Your task to perform on an android device: turn on notifications settings in the gmail app Image 0: 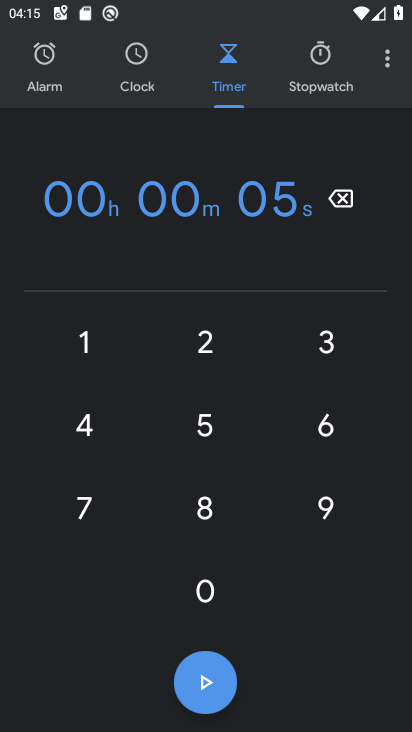
Step 0: press home button
Your task to perform on an android device: turn on notifications settings in the gmail app Image 1: 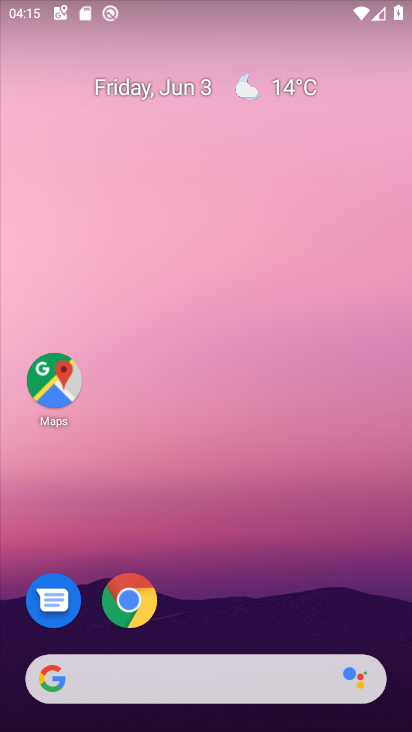
Step 1: drag from (199, 356) to (152, 152)
Your task to perform on an android device: turn on notifications settings in the gmail app Image 2: 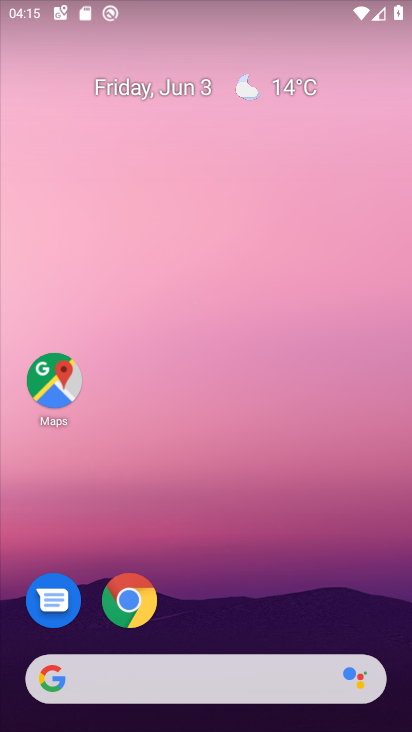
Step 2: drag from (215, 518) to (192, 184)
Your task to perform on an android device: turn on notifications settings in the gmail app Image 3: 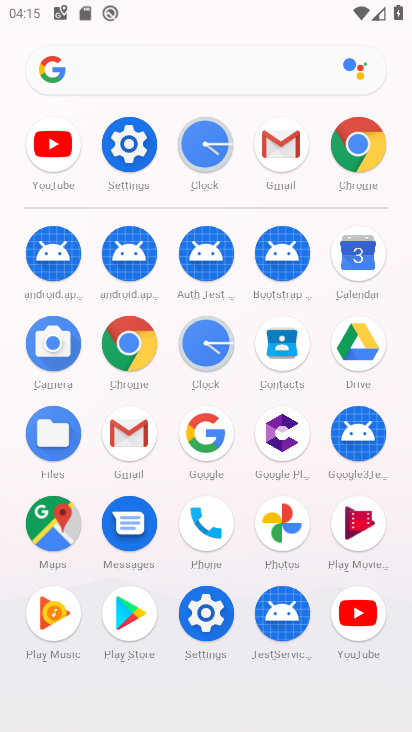
Step 3: click (278, 154)
Your task to perform on an android device: turn on notifications settings in the gmail app Image 4: 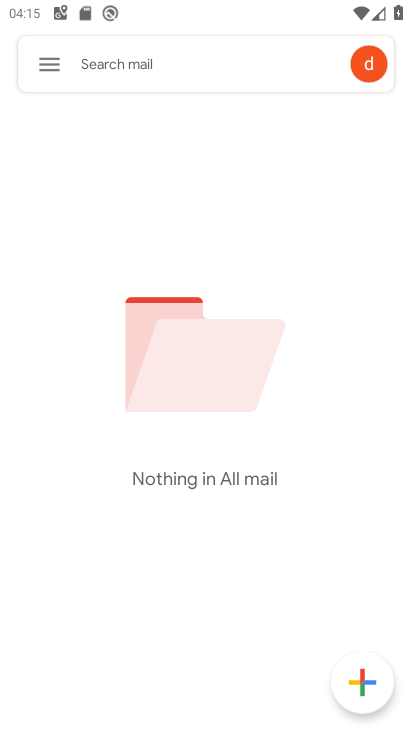
Step 4: click (48, 63)
Your task to perform on an android device: turn on notifications settings in the gmail app Image 5: 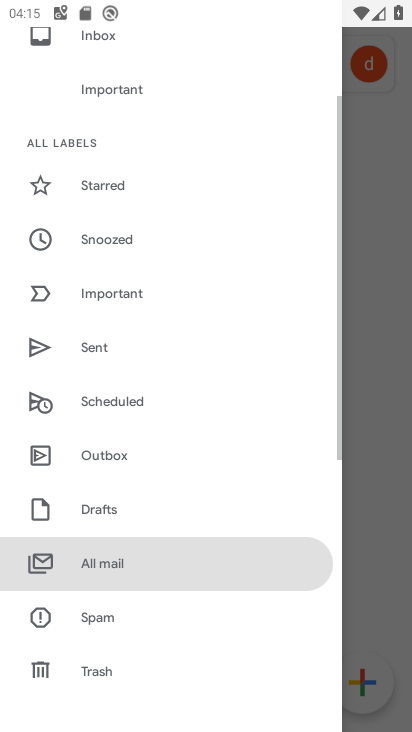
Step 5: drag from (107, 655) to (203, 239)
Your task to perform on an android device: turn on notifications settings in the gmail app Image 6: 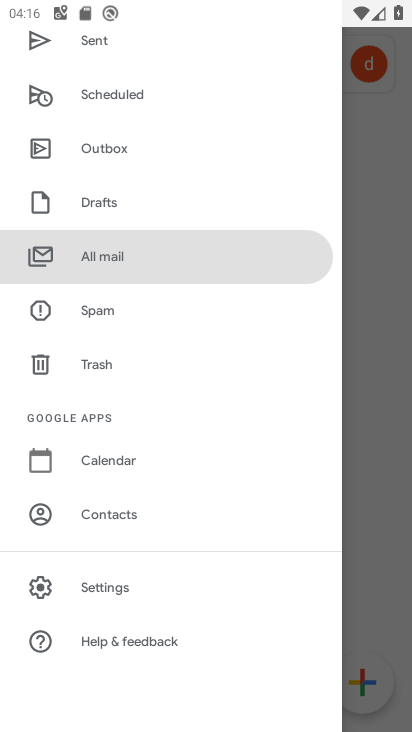
Step 6: click (97, 584)
Your task to perform on an android device: turn on notifications settings in the gmail app Image 7: 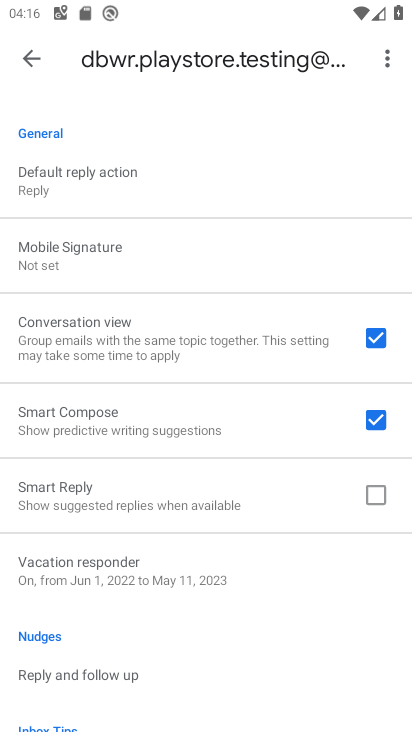
Step 7: drag from (172, 308) to (178, 615)
Your task to perform on an android device: turn on notifications settings in the gmail app Image 8: 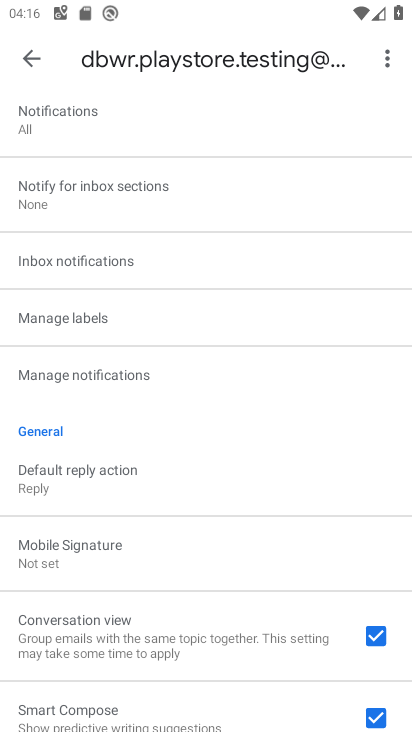
Step 8: click (103, 363)
Your task to perform on an android device: turn on notifications settings in the gmail app Image 9: 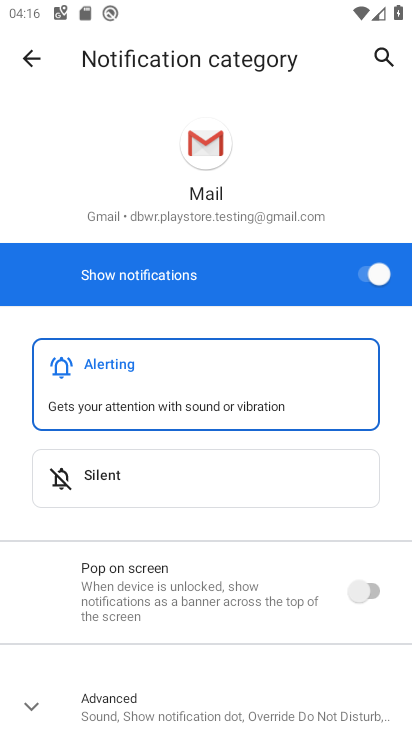
Step 9: task complete